Your task to perform on an android device: open a bookmark in the chrome app Image 0: 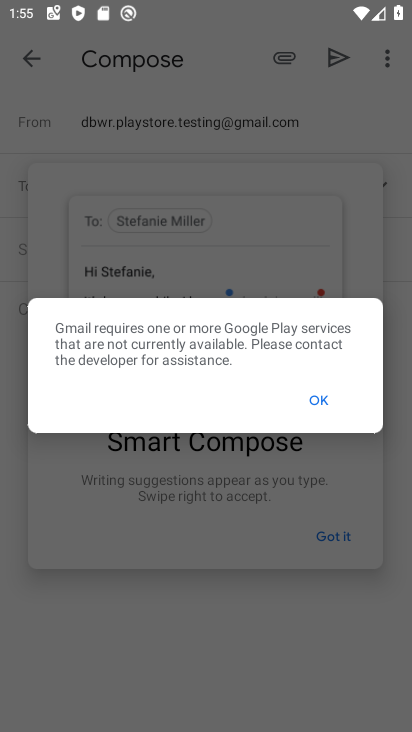
Step 0: press home button
Your task to perform on an android device: open a bookmark in the chrome app Image 1: 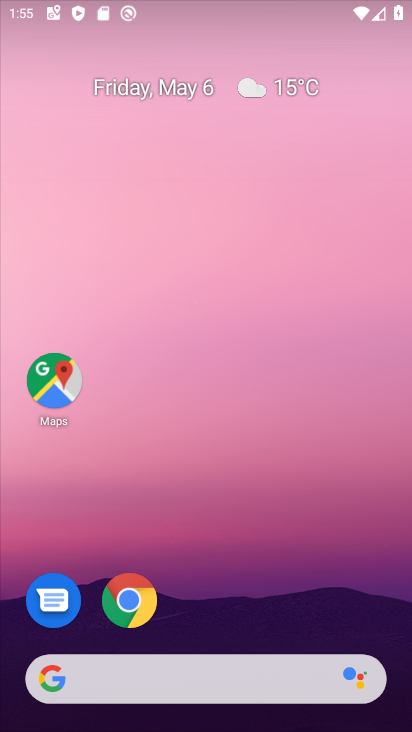
Step 1: drag from (311, 632) to (289, 64)
Your task to perform on an android device: open a bookmark in the chrome app Image 2: 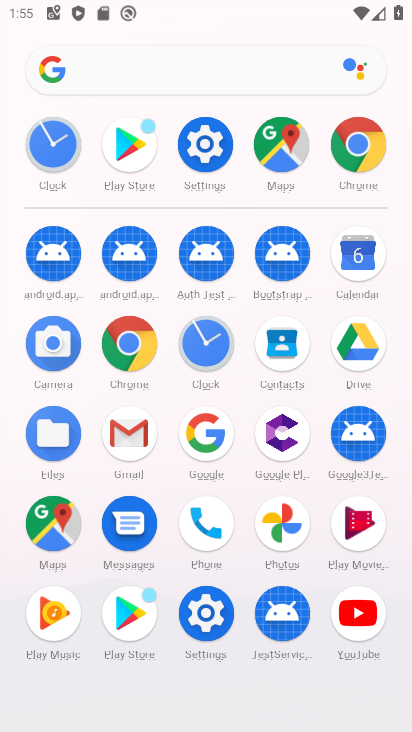
Step 2: click (356, 154)
Your task to perform on an android device: open a bookmark in the chrome app Image 3: 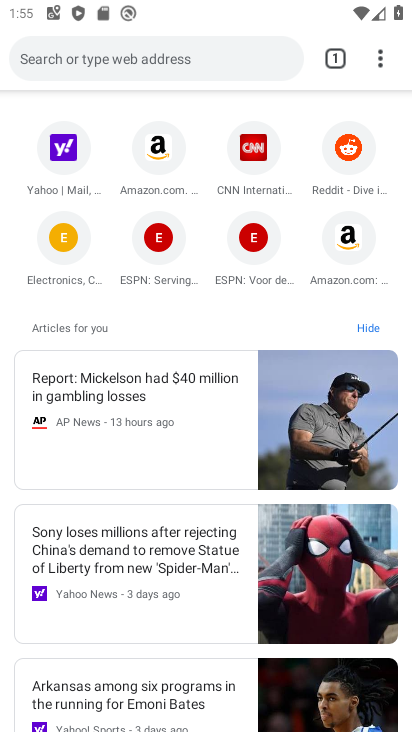
Step 3: click (388, 55)
Your task to perform on an android device: open a bookmark in the chrome app Image 4: 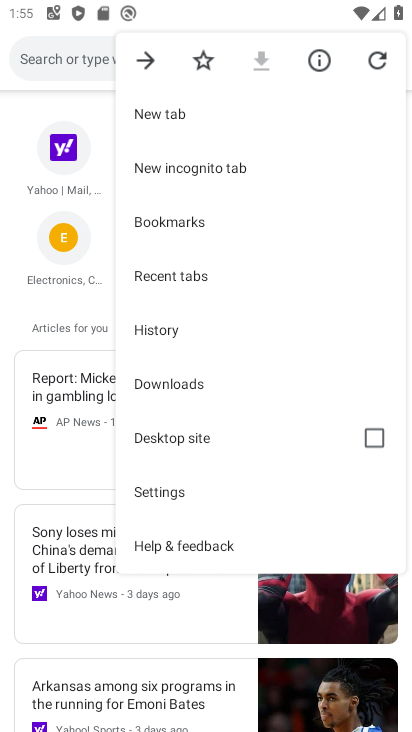
Step 4: click (263, 223)
Your task to perform on an android device: open a bookmark in the chrome app Image 5: 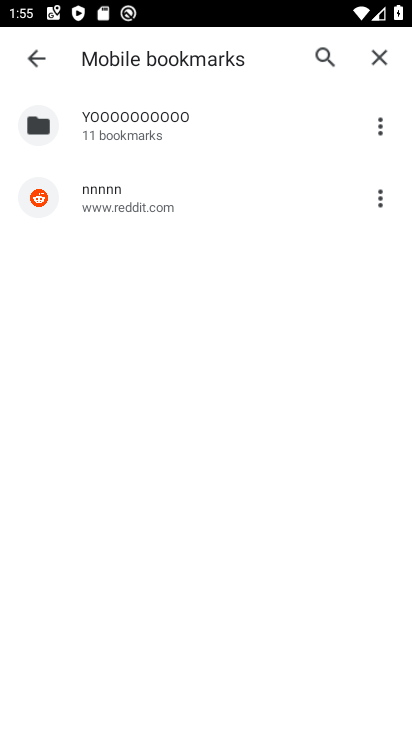
Step 5: task complete